Your task to perform on an android device: turn off location history Image 0: 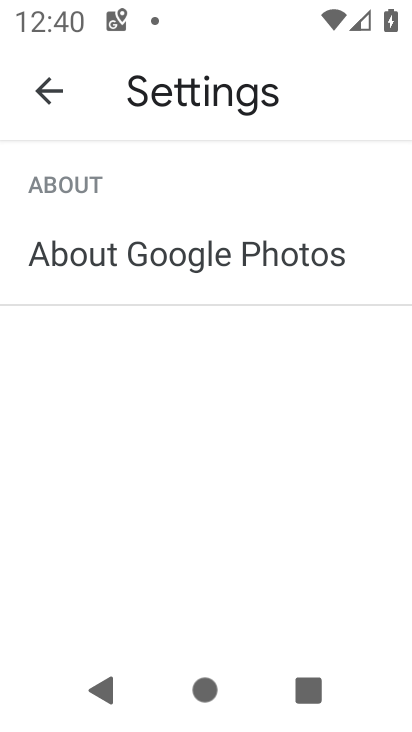
Step 0: press home button
Your task to perform on an android device: turn off location history Image 1: 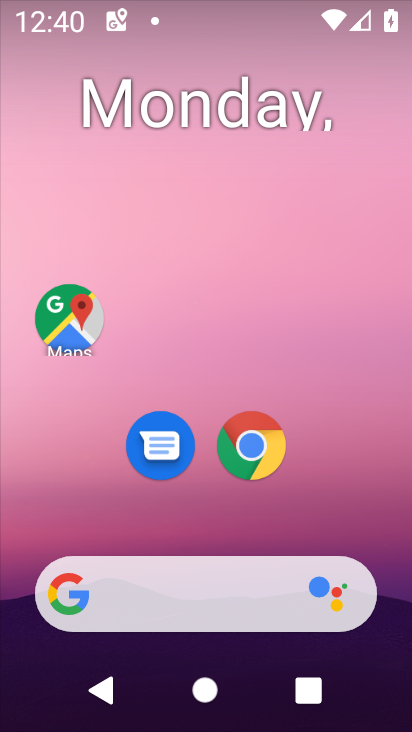
Step 1: drag from (342, 507) to (265, 129)
Your task to perform on an android device: turn off location history Image 2: 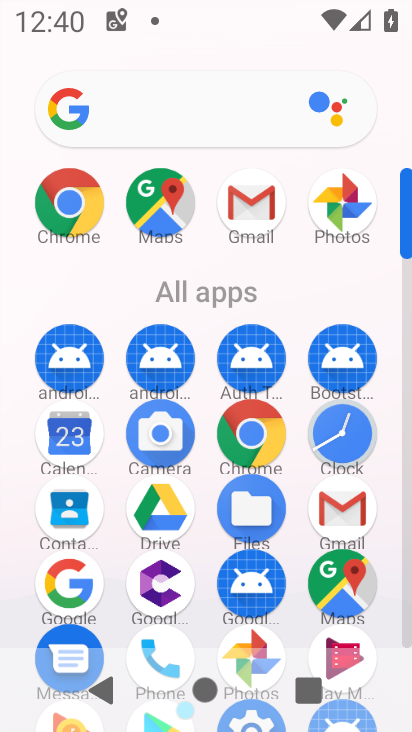
Step 2: drag from (204, 503) to (207, 315)
Your task to perform on an android device: turn off location history Image 3: 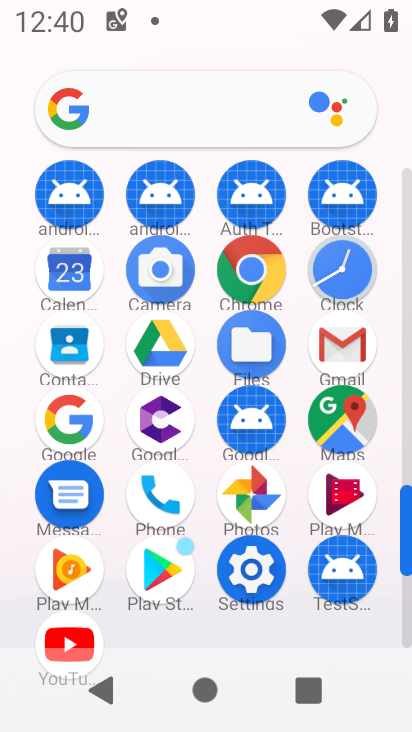
Step 3: click (254, 570)
Your task to perform on an android device: turn off location history Image 4: 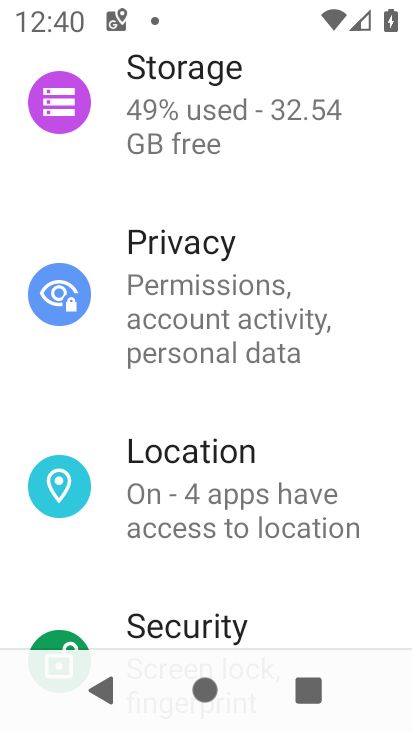
Step 4: click (203, 467)
Your task to perform on an android device: turn off location history Image 5: 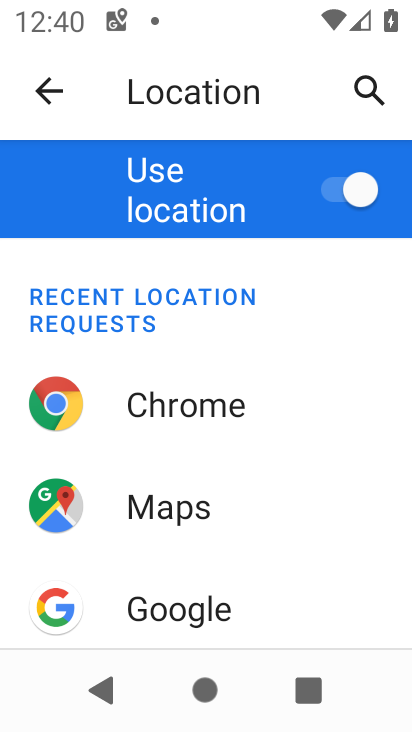
Step 5: drag from (216, 548) to (272, 453)
Your task to perform on an android device: turn off location history Image 6: 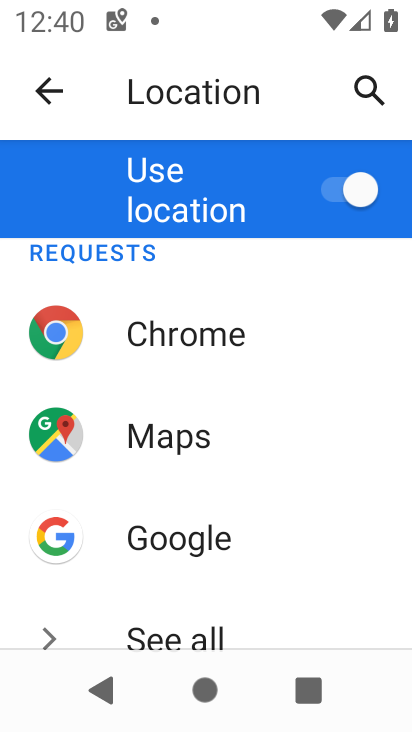
Step 6: drag from (165, 572) to (248, 429)
Your task to perform on an android device: turn off location history Image 7: 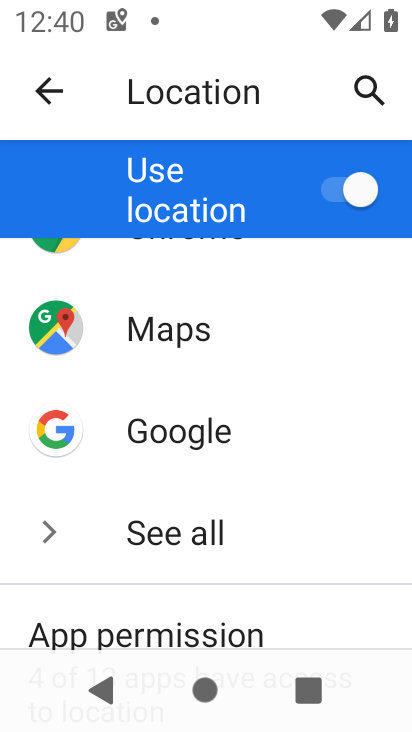
Step 7: drag from (184, 511) to (202, 331)
Your task to perform on an android device: turn off location history Image 8: 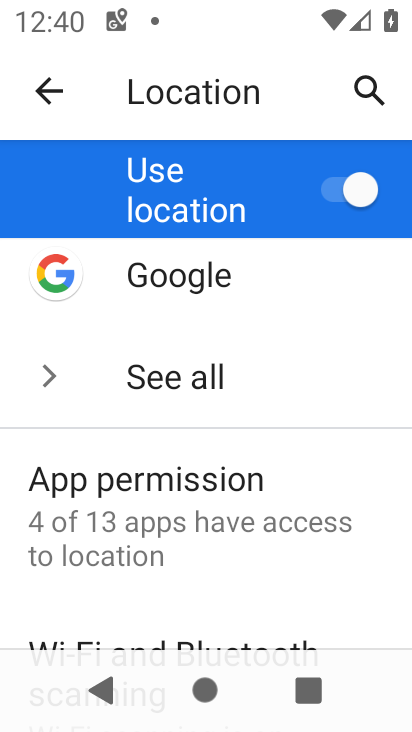
Step 8: drag from (191, 511) to (237, 360)
Your task to perform on an android device: turn off location history Image 9: 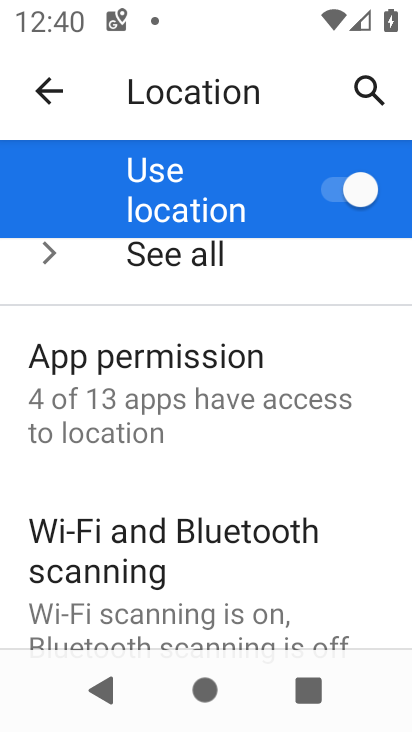
Step 9: drag from (167, 511) to (227, 337)
Your task to perform on an android device: turn off location history Image 10: 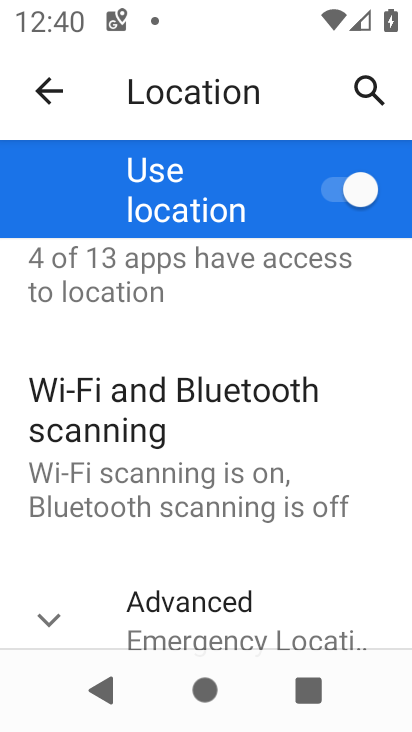
Step 10: drag from (170, 522) to (248, 370)
Your task to perform on an android device: turn off location history Image 11: 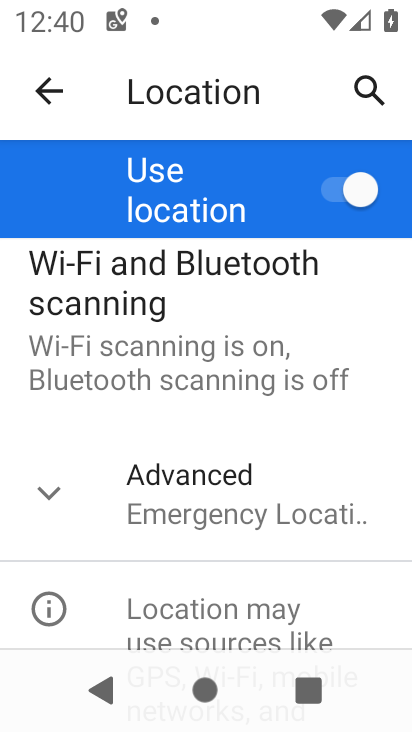
Step 11: drag from (244, 417) to (256, 373)
Your task to perform on an android device: turn off location history Image 12: 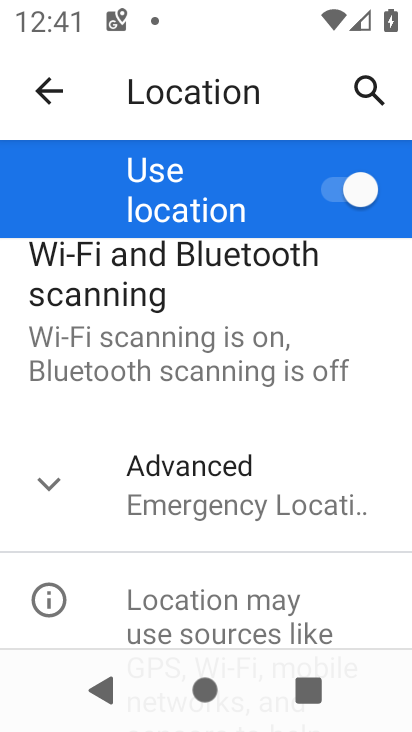
Step 12: click (248, 511)
Your task to perform on an android device: turn off location history Image 13: 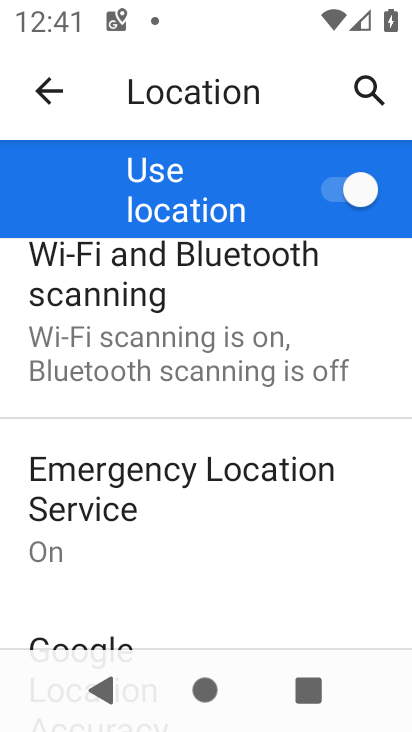
Step 13: drag from (175, 577) to (274, 425)
Your task to perform on an android device: turn off location history Image 14: 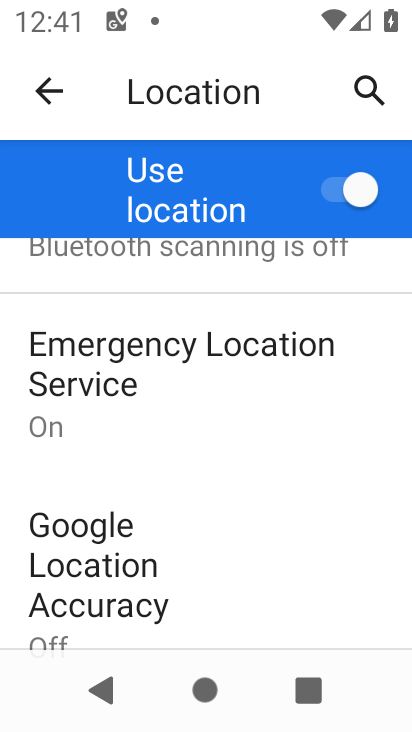
Step 14: drag from (199, 531) to (251, 430)
Your task to perform on an android device: turn off location history Image 15: 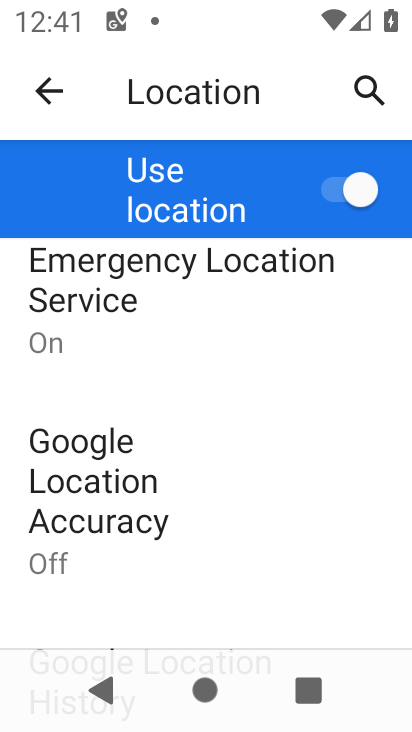
Step 15: drag from (127, 575) to (194, 419)
Your task to perform on an android device: turn off location history Image 16: 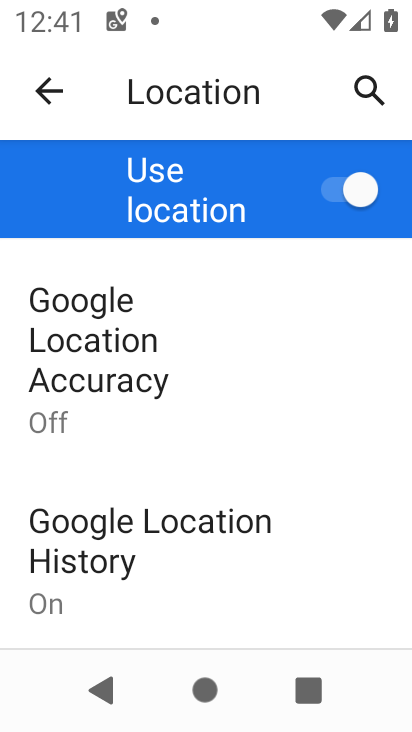
Step 16: click (127, 550)
Your task to perform on an android device: turn off location history Image 17: 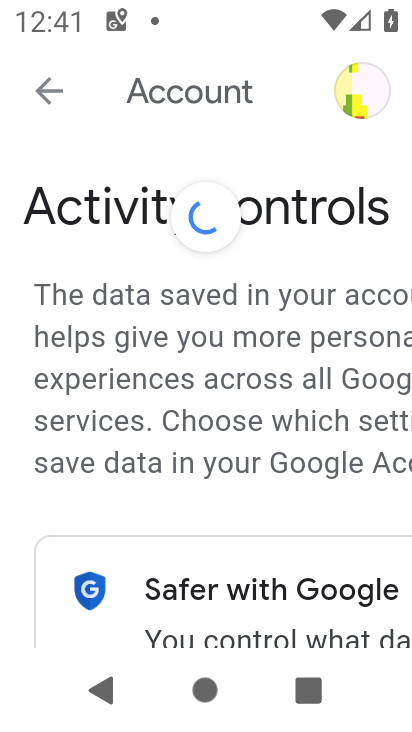
Step 17: task complete